Your task to perform on an android device: Go to sound settings Image 0: 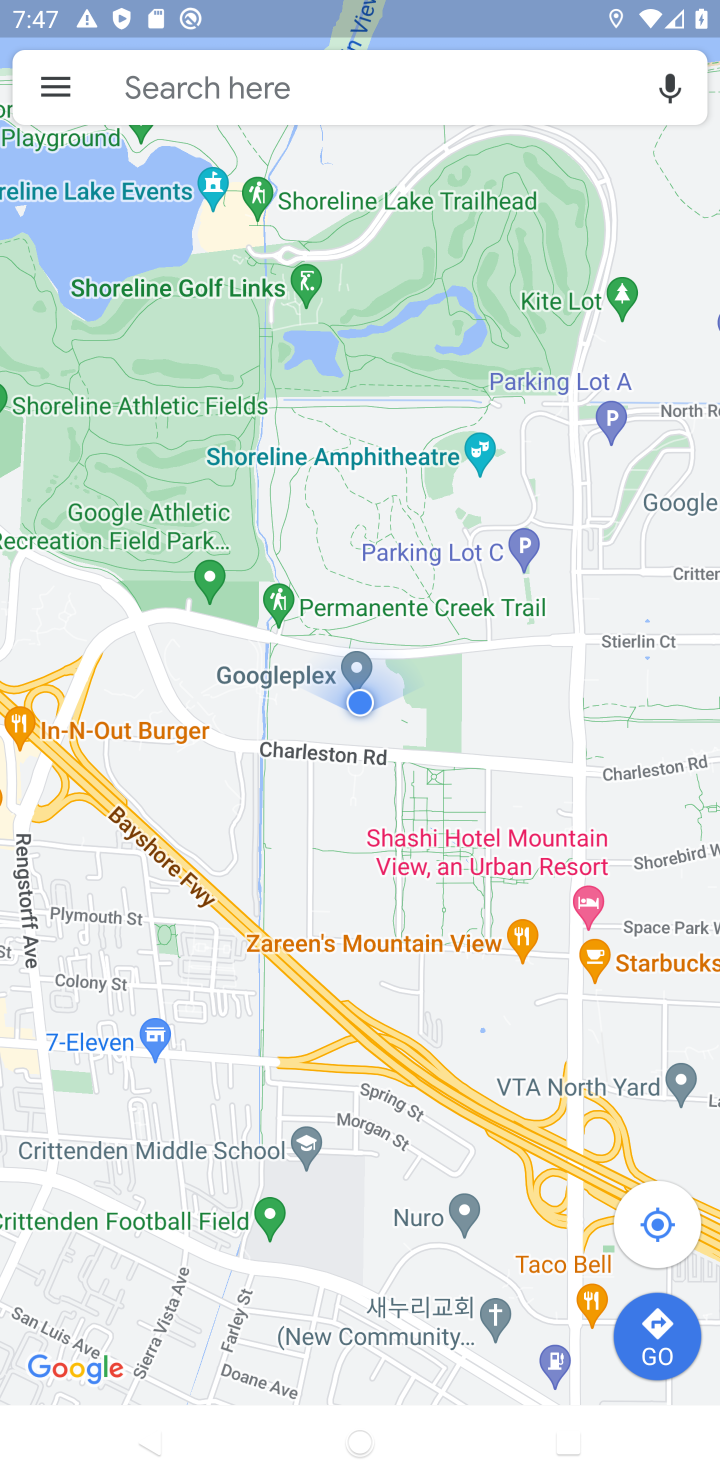
Step 0: press home button
Your task to perform on an android device: Go to sound settings Image 1: 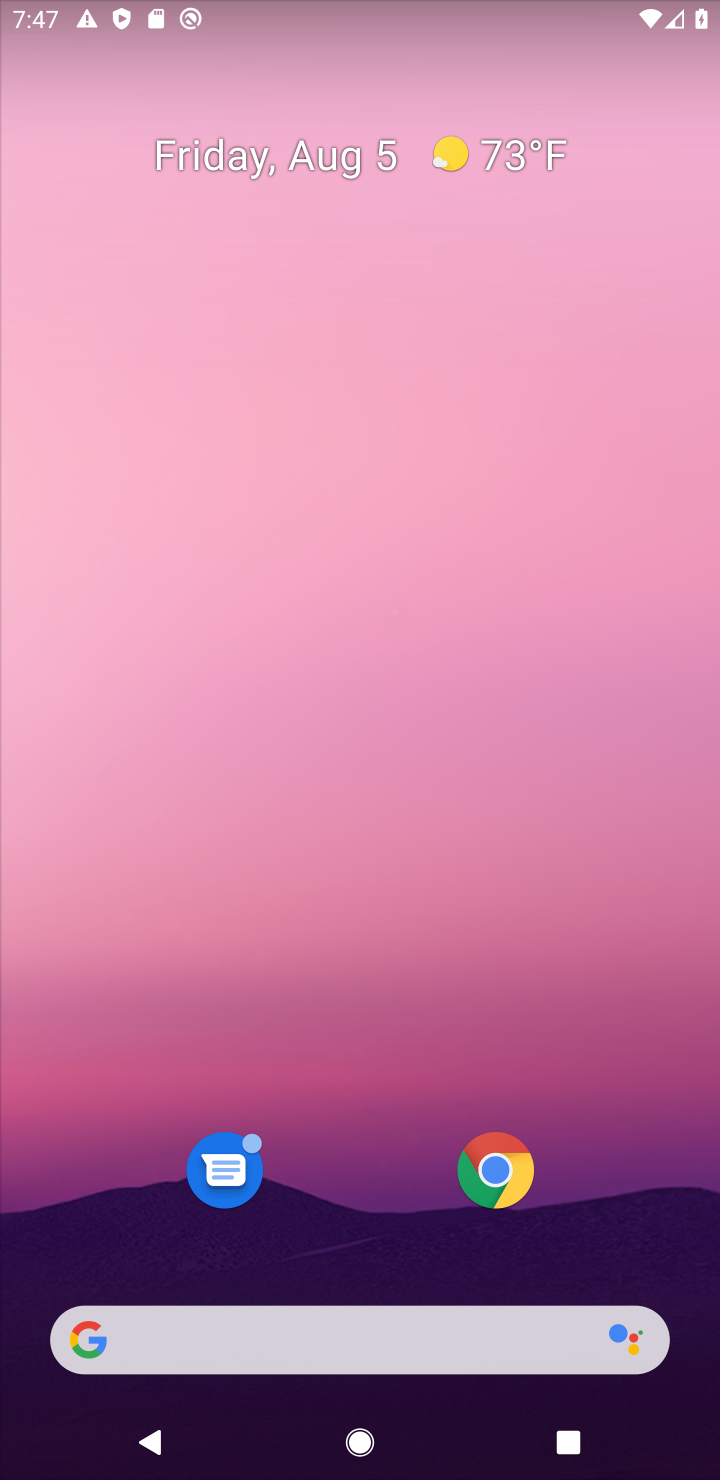
Step 1: drag from (622, 1228) to (607, 235)
Your task to perform on an android device: Go to sound settings Image 2: 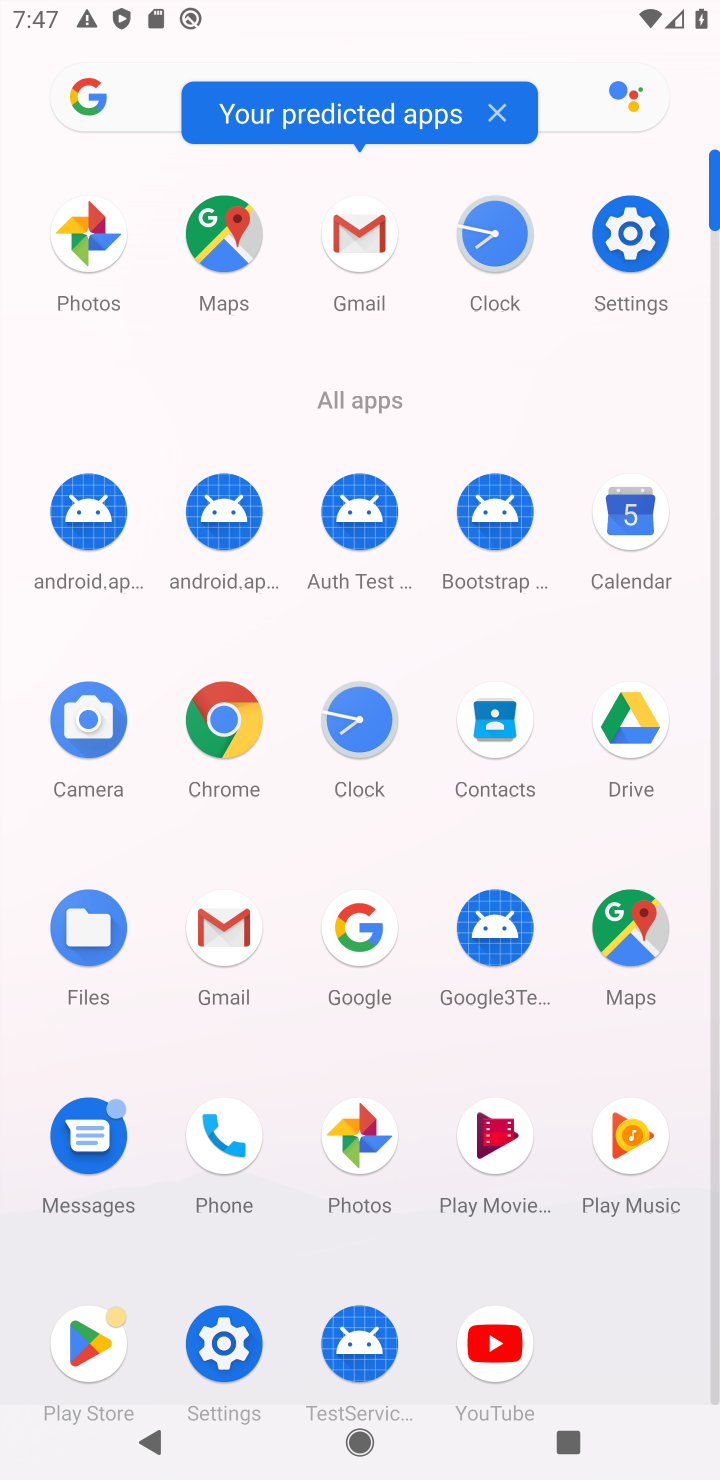
Step 2: click (221, 1347)
Your task to perform on an android device: Go to sound settings Image 3: 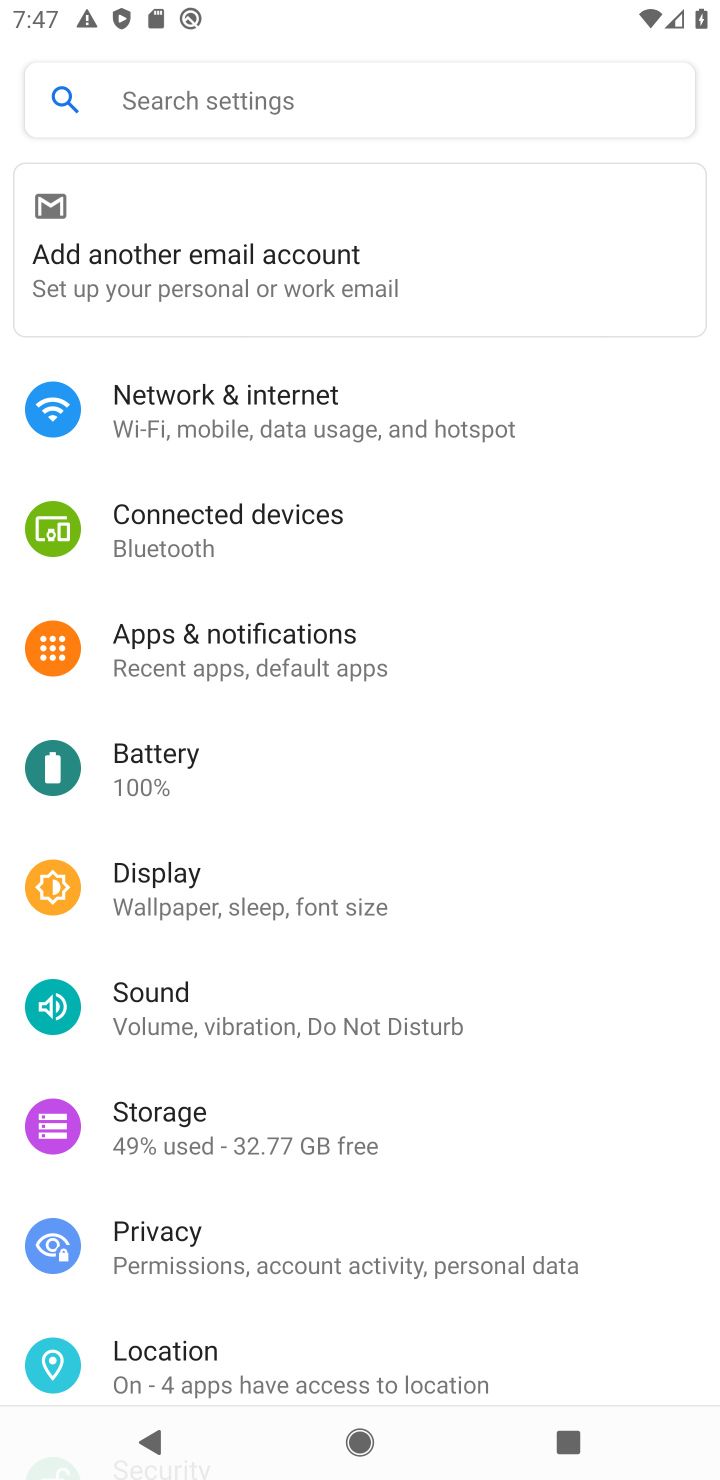
Step 3: click (183, 996)
Your task to perform on an android device: Go to sound settings Image 4: 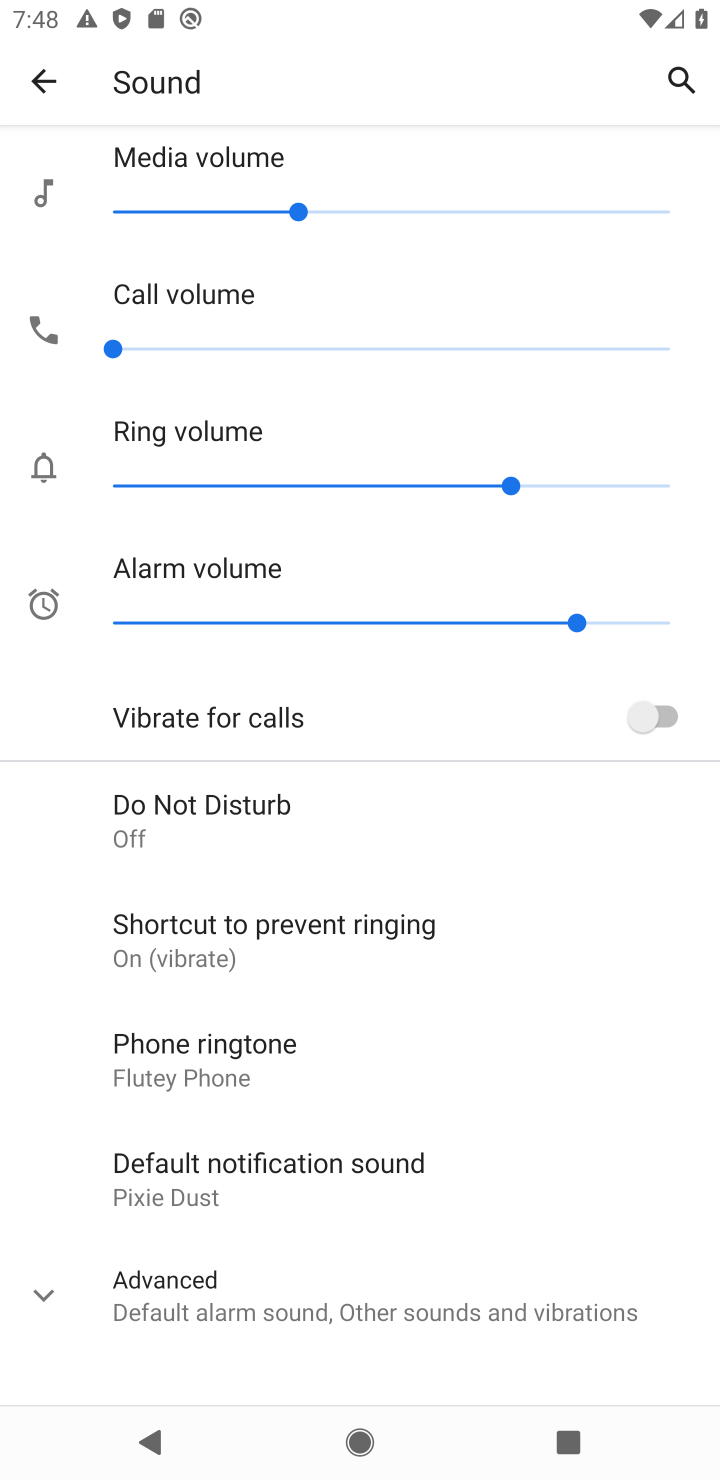
Step 4: task complete